Your task to perform on an android device: turn off javascript in the chrome app Image 0: 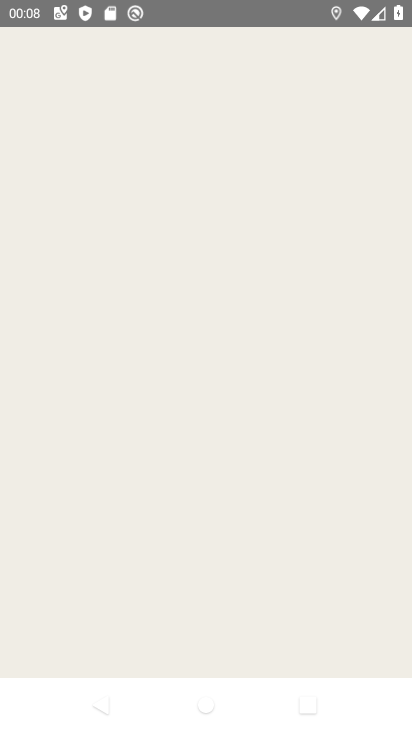
Step 0: click (254, 193)
Your task to perform on an android device: turn off javascript in the chrome app Image 1: 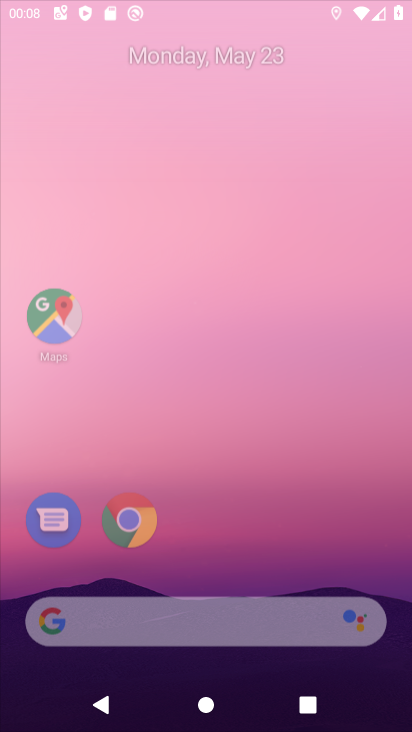
Step 1: drag from (199, 617) to (226, 322)
Your task to perform on an android device: turn off javascript in the chrome app Image 2: 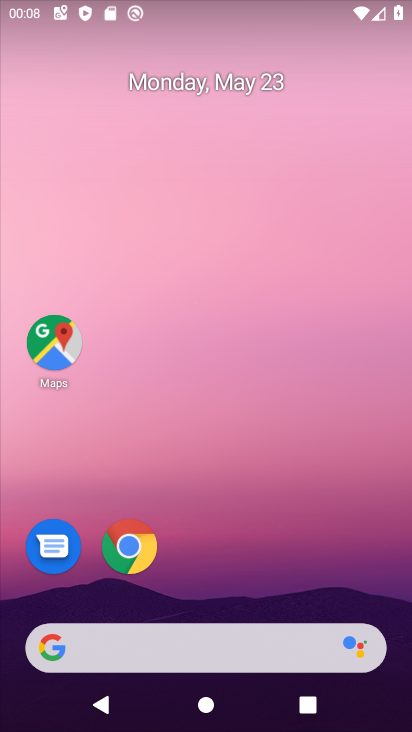
Step 2: drag from (261, 607) to (274, 309)
Your task to perform on an android device: turn off javascript in the chrome app Image 3: 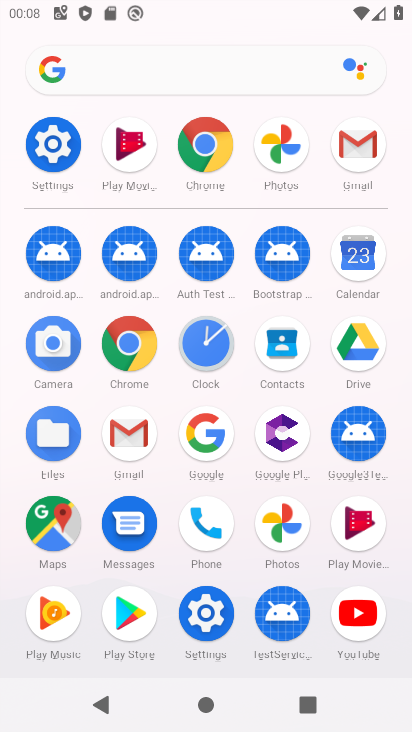
Step 3: drag from (241, 598) to (120, 1)
Your task to perform on an android device: turn off javascript in the chrome app Image 4: 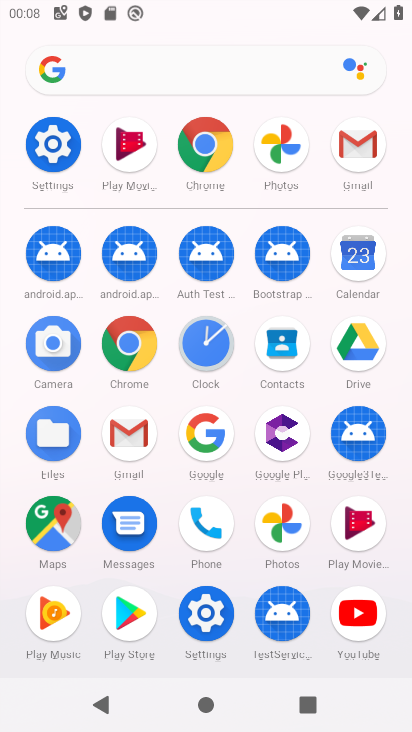
Step 4: drag from (233, 143) to (302, 568)
Your task to perform on an android device: turn off javascript in the chrome app Image 5: 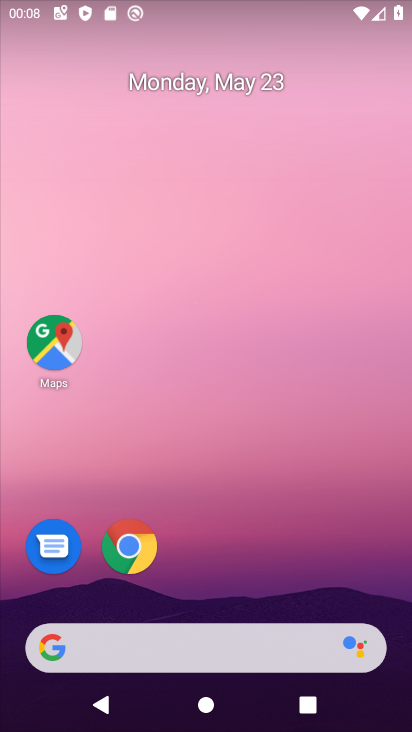
Step 5: drag from (203, 601) to (226, 113)
Your task to perform on an android device: turn off javascript in the chrome app Image 6: 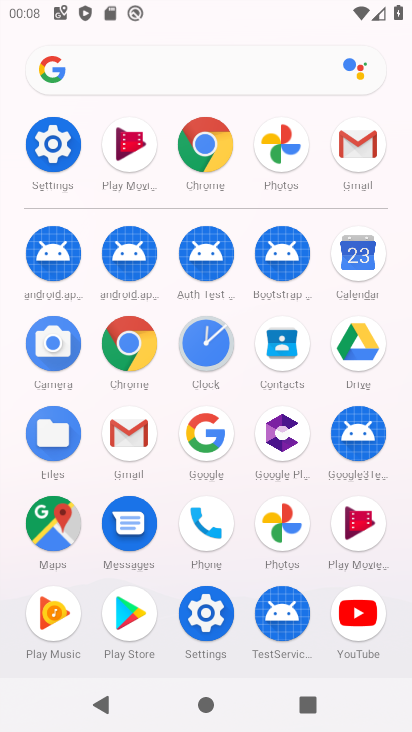
Step 6: drag from (249, 598) to (266, 186)
Your task to perform on an android device: turn off javascript in the chrome app Image 7: 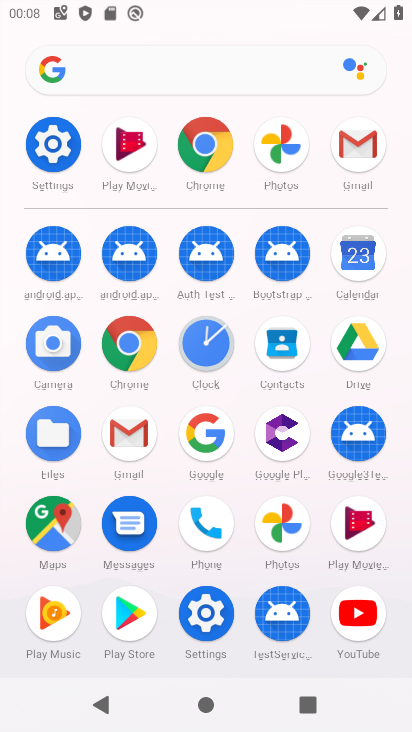
Step 7: click (130, 338)
Your task to perform on an android device: turn off javascript in the chrome app Image 8: 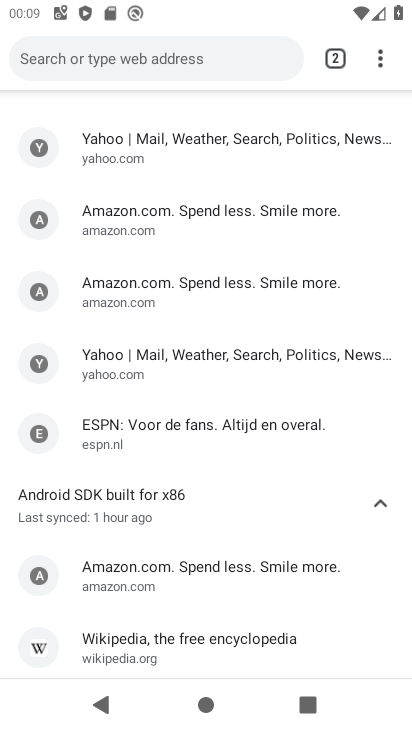
Step 8: drag from (211, 552) to (296, 115)
Your task to perform on an android device: turn off javascript in the chrome app Image 9: 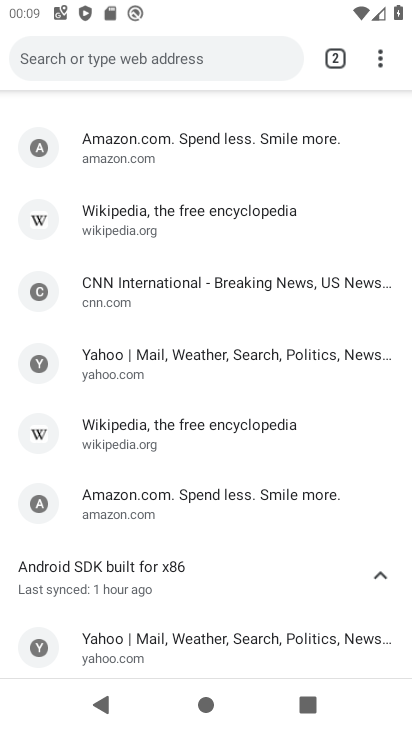
Step 9: click (377, 49)
Your task to perform on an android device: turn off javascript in the chrome app Image 10: 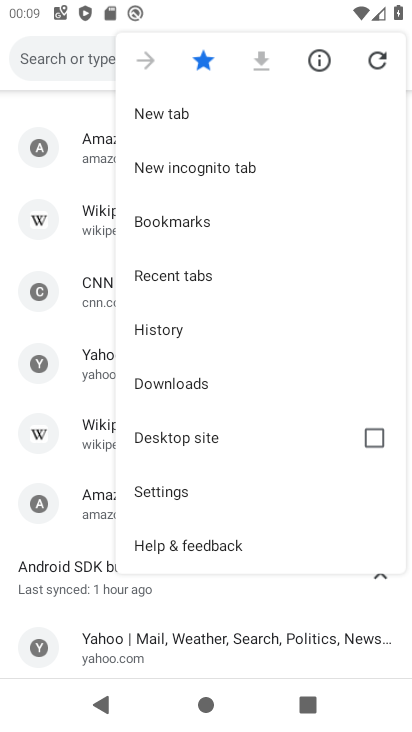
Step 10: click (228, 506)
Your task to perform on an android device: turn off javascript in the chrome app Image 11: 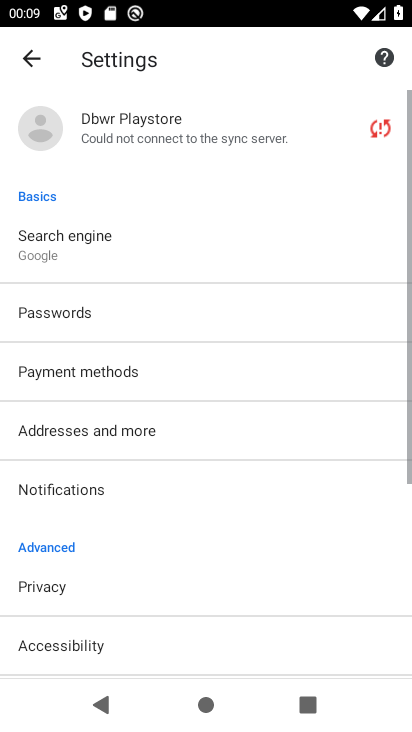
Step 11: drag from (251, 491) to (319, 46)
Your task to perform on an android device: turn off javascript in the chrome app Image 12: 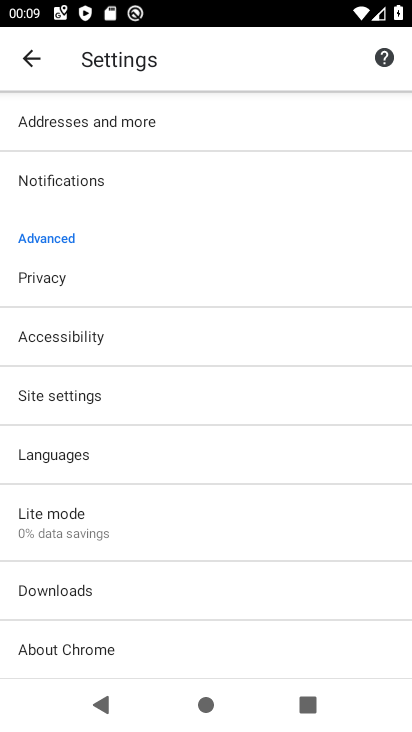
Step 12: click (129, 398)
Your task to perform on an android device: turn off javascript in the chrome app Image 13: 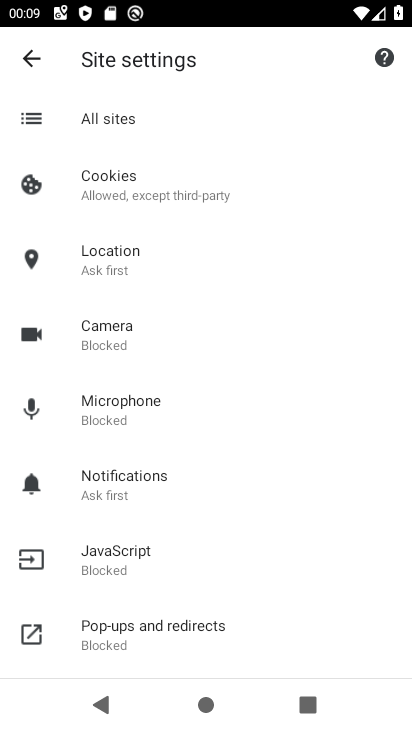
Step 13: click (153, 570)
Your task to perform on an android device: turn off javascript in the chrome app Image 14: 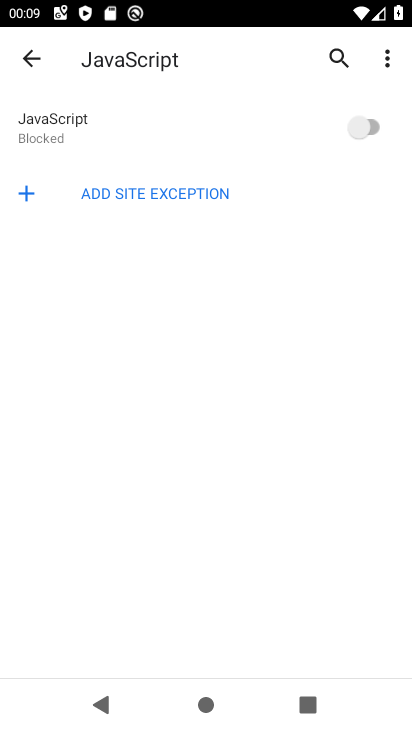
Step 14: task complete